Your task to perform on an android device: uninstall "Messages" Image 0: 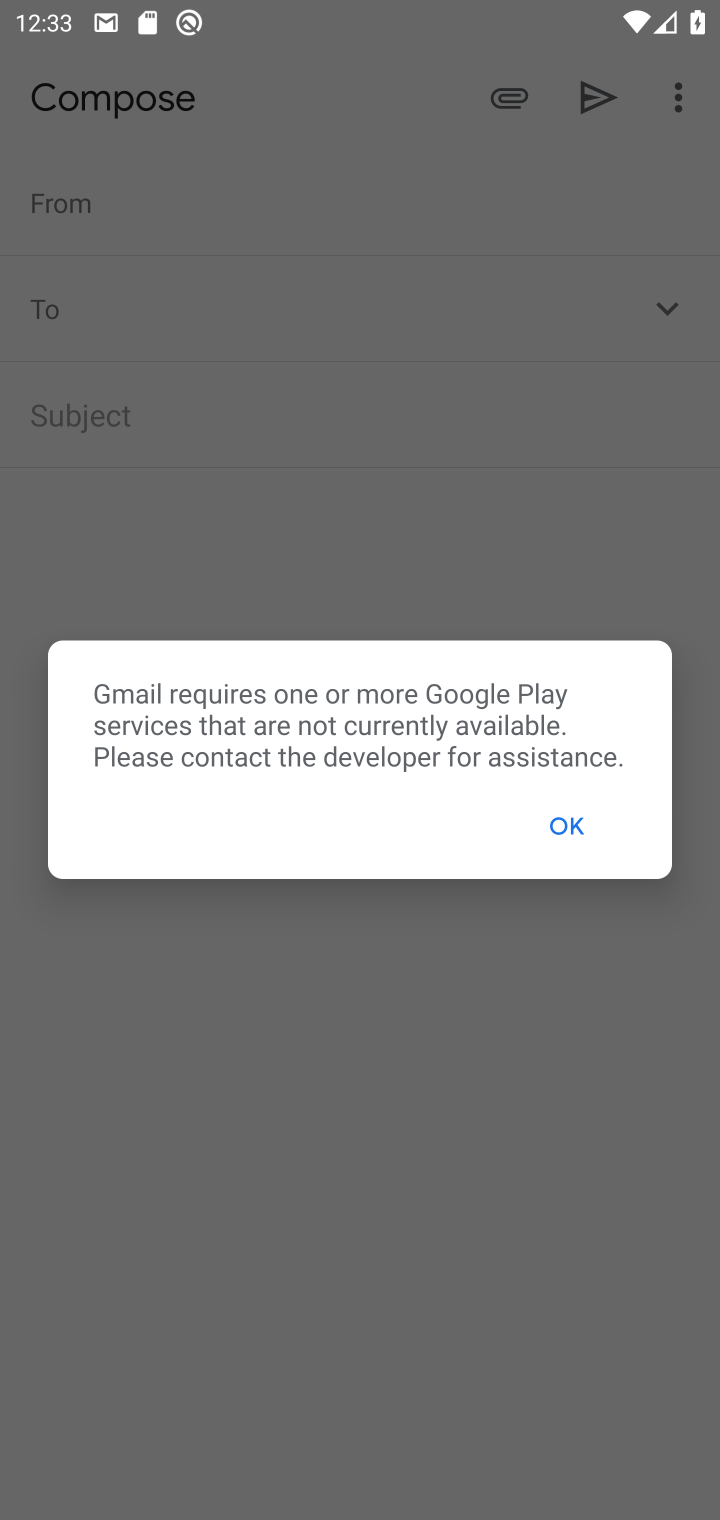
Step 0: press home button
Your task to perform on an android device: uninstall "Messages" Image 1: 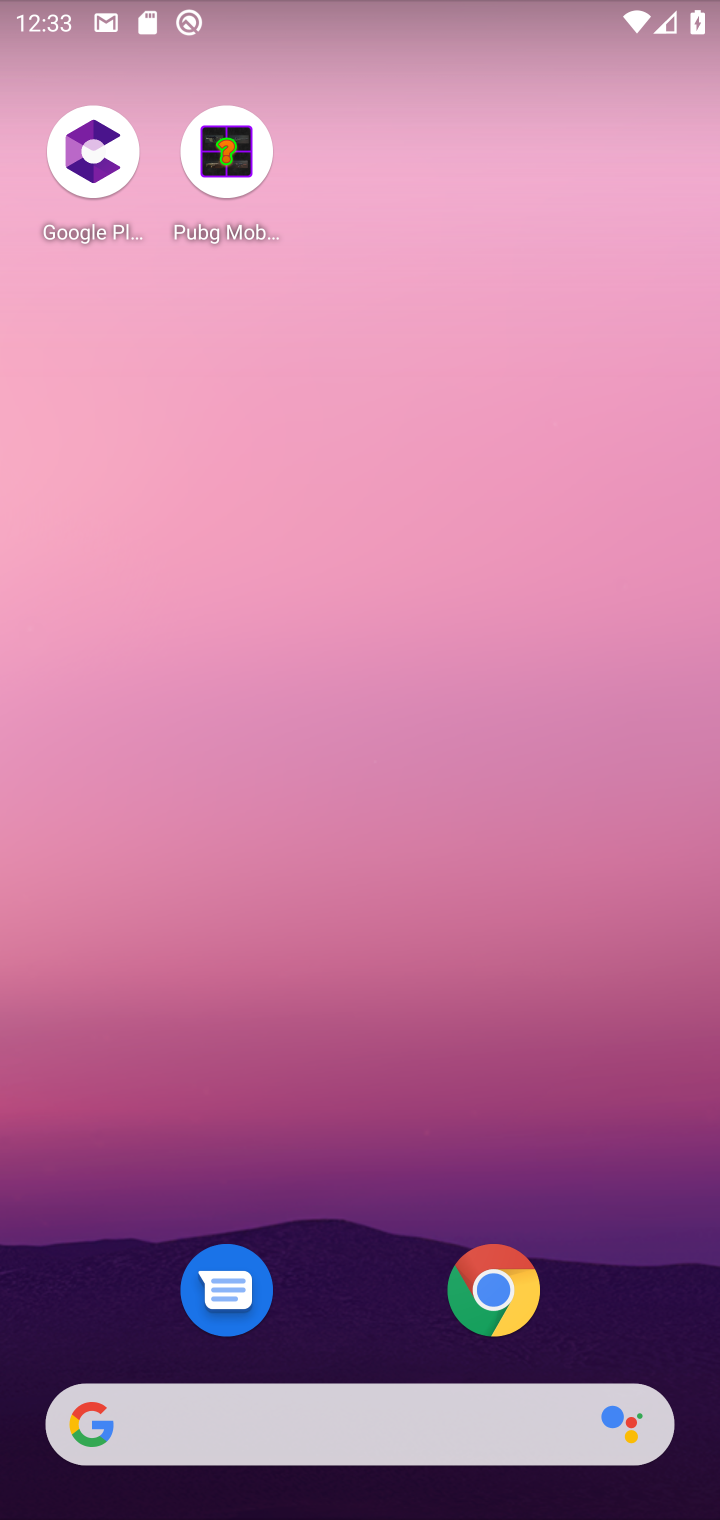
Step 1: click (354, 193)
Your task to perform on an android device: uninstall "Messages" Image 2: 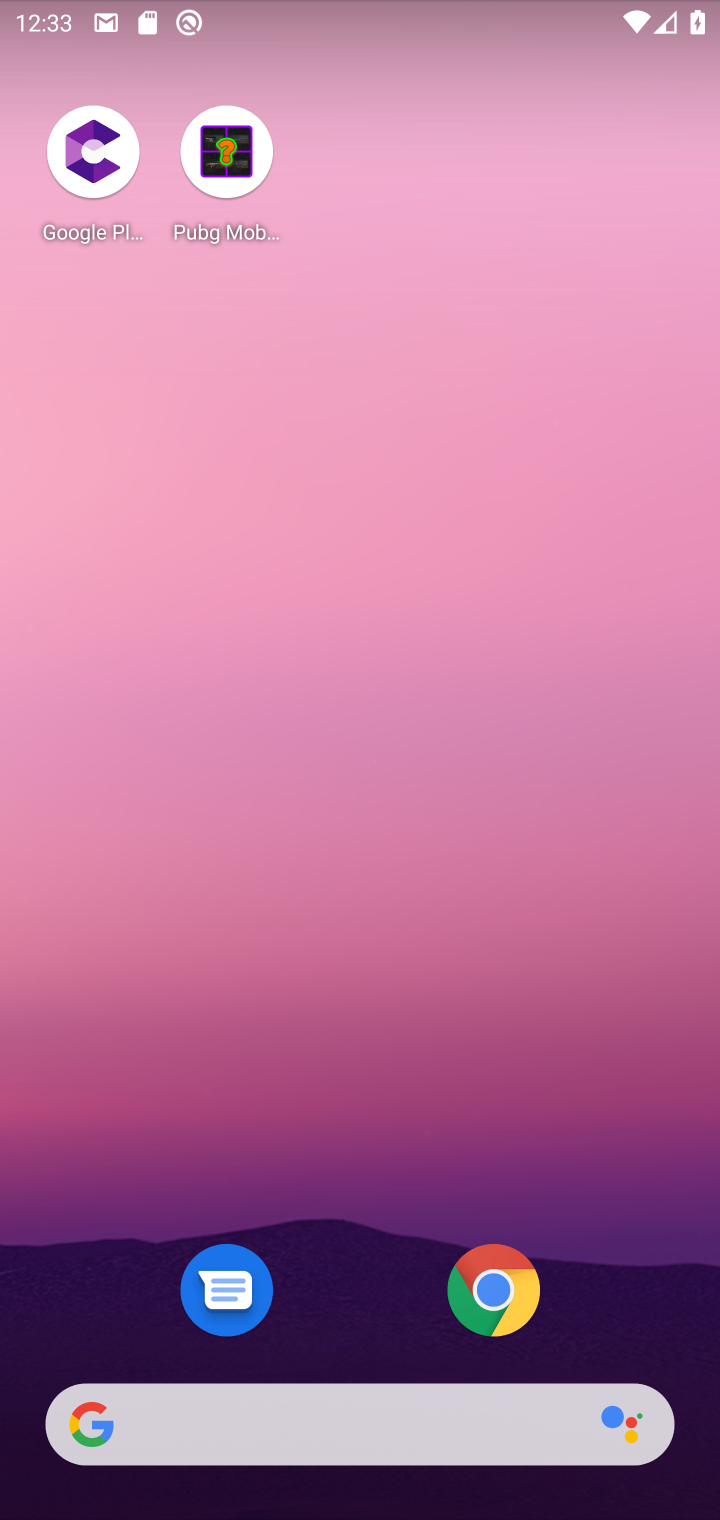
Step 2: click (334, 1315)
Your task to perform on an android device: uninstall "Messages" Image 3: 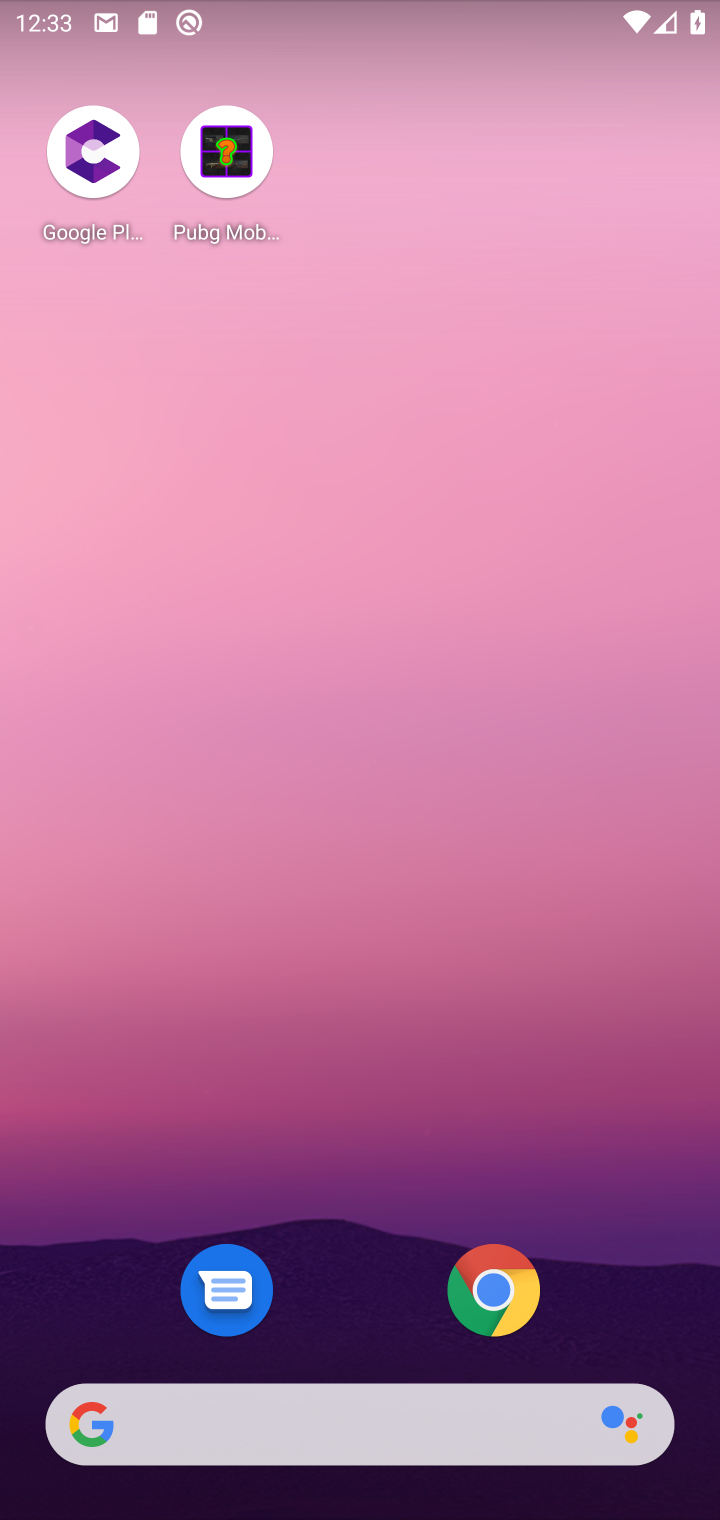
Step 3: drag from (385, 700) to (381, 61)
Your task to perform on an android device: uninstall "Messages" Image 4: 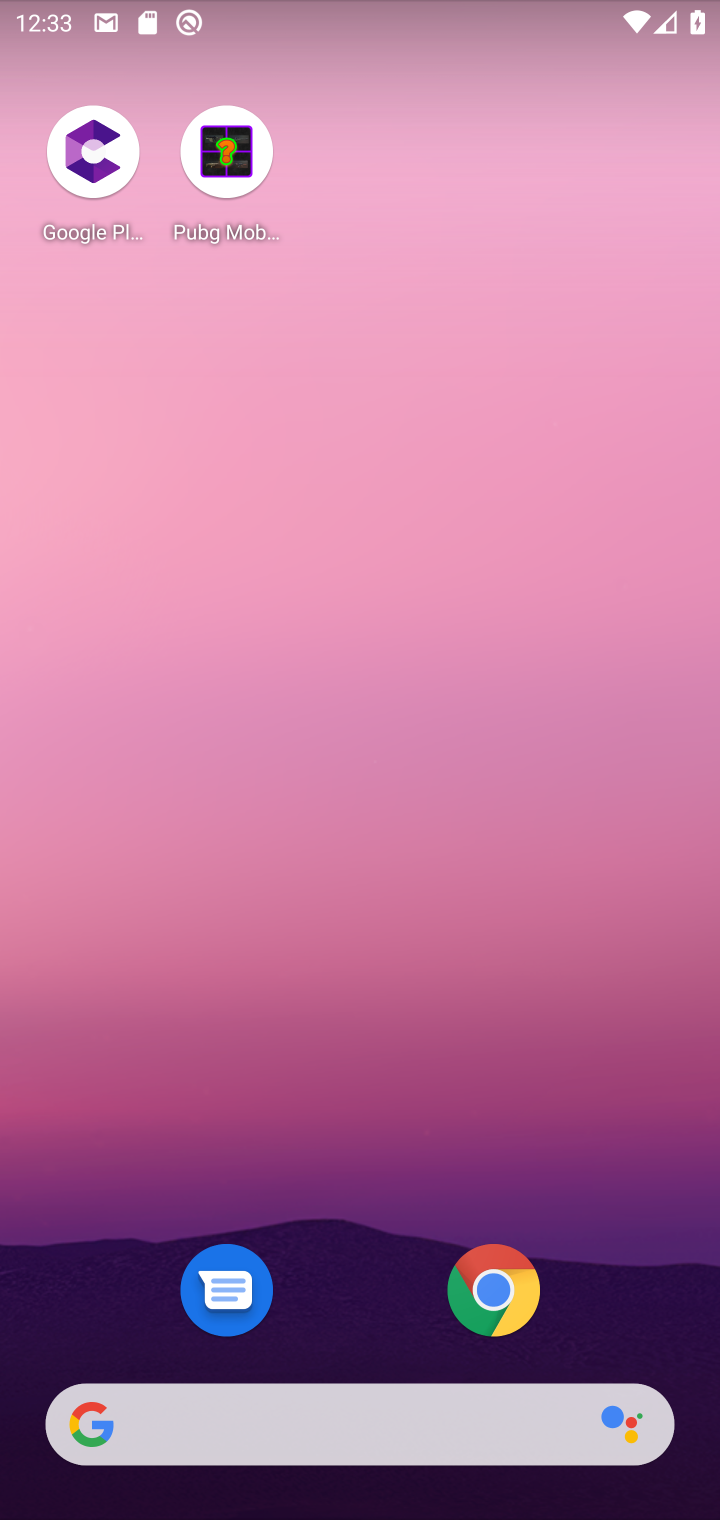
Step 4: drag from (290, 175) to (286, 17)
Your task to perform on an android device: uninstall "Messages" Image 5: 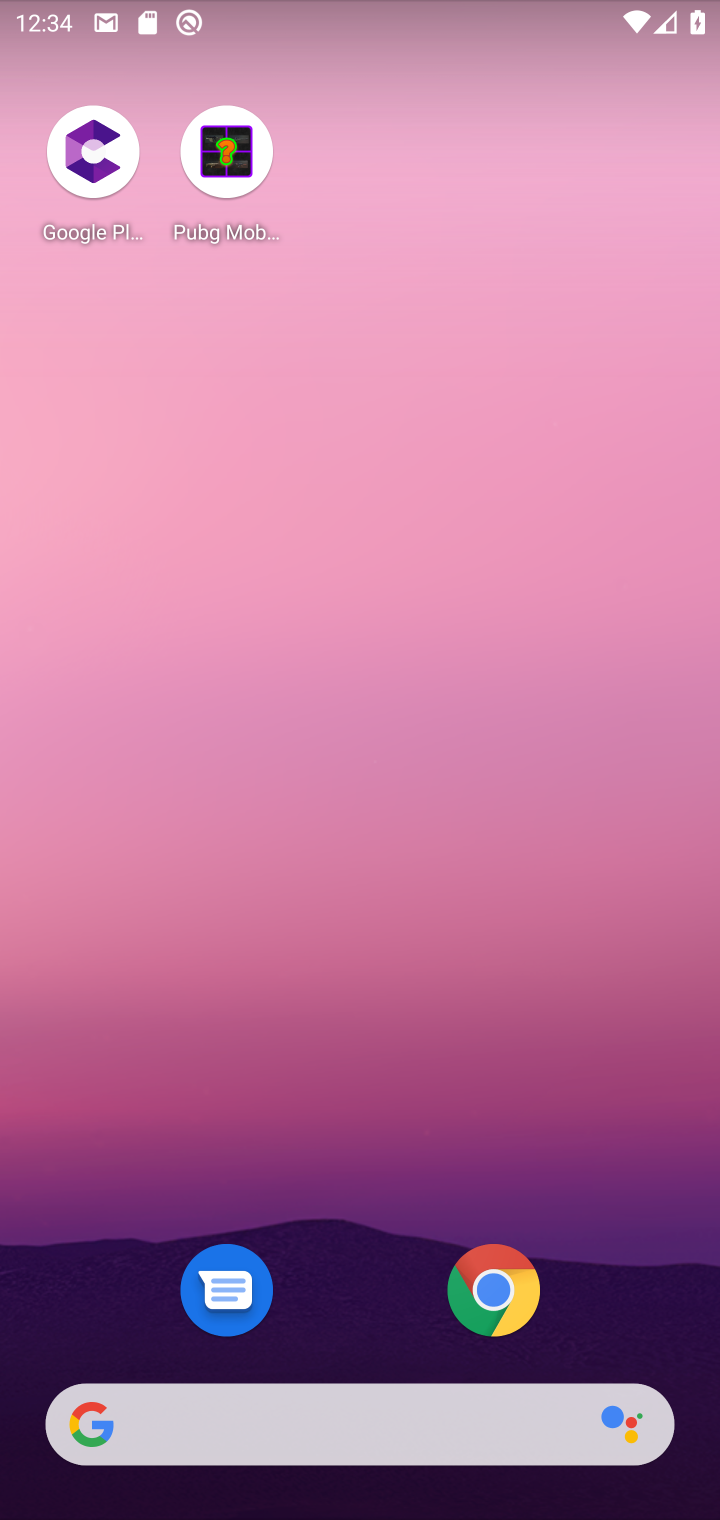
Step 5: drag from (328, 1039) to (446, 175)
Your task to perform on an android device: uninstall "Messages" Image 6: 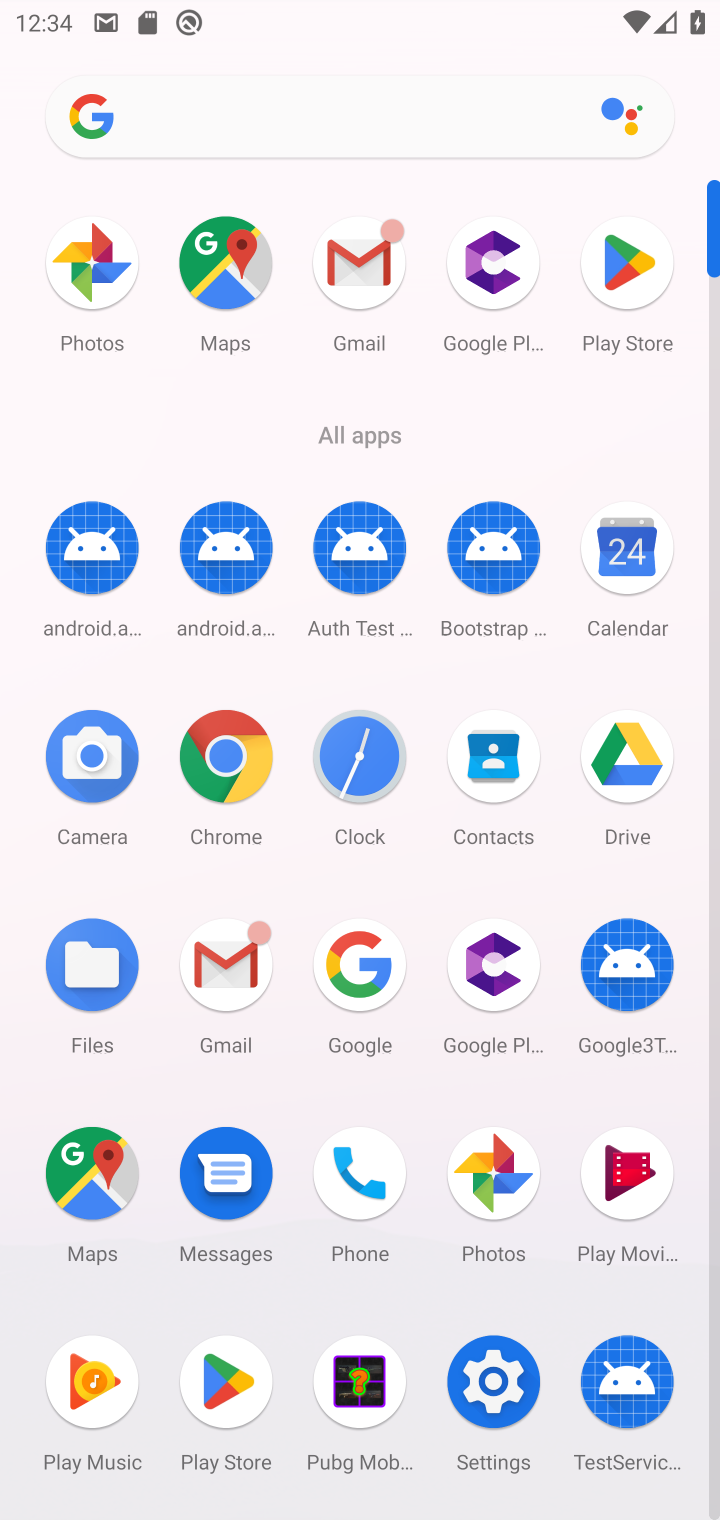
Step 6: click (614, 249)
Your task to perform on an android device: uninstall "Messages" Image 7: 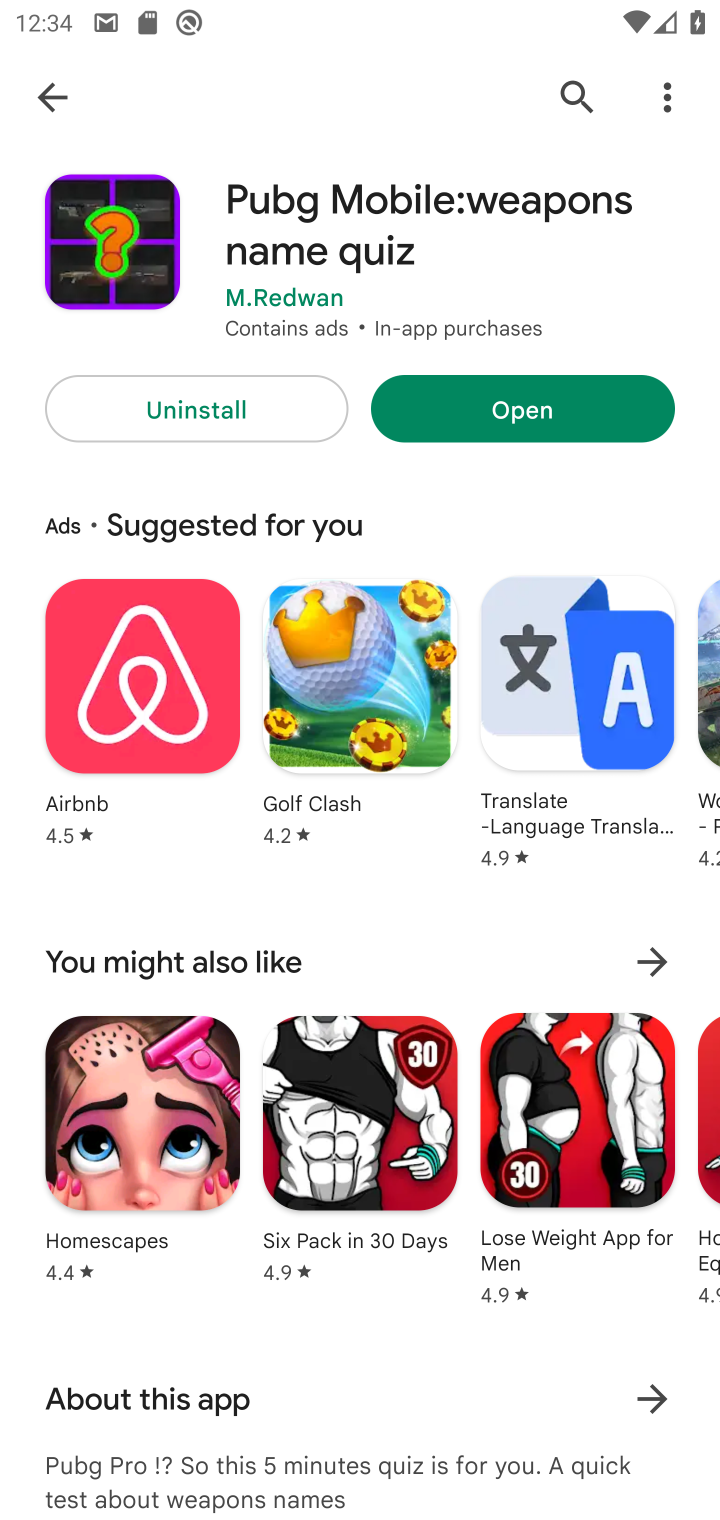
Step 7: click (39, 90)
Your task to perform on an android device: uninstall "Messages" Image 8: 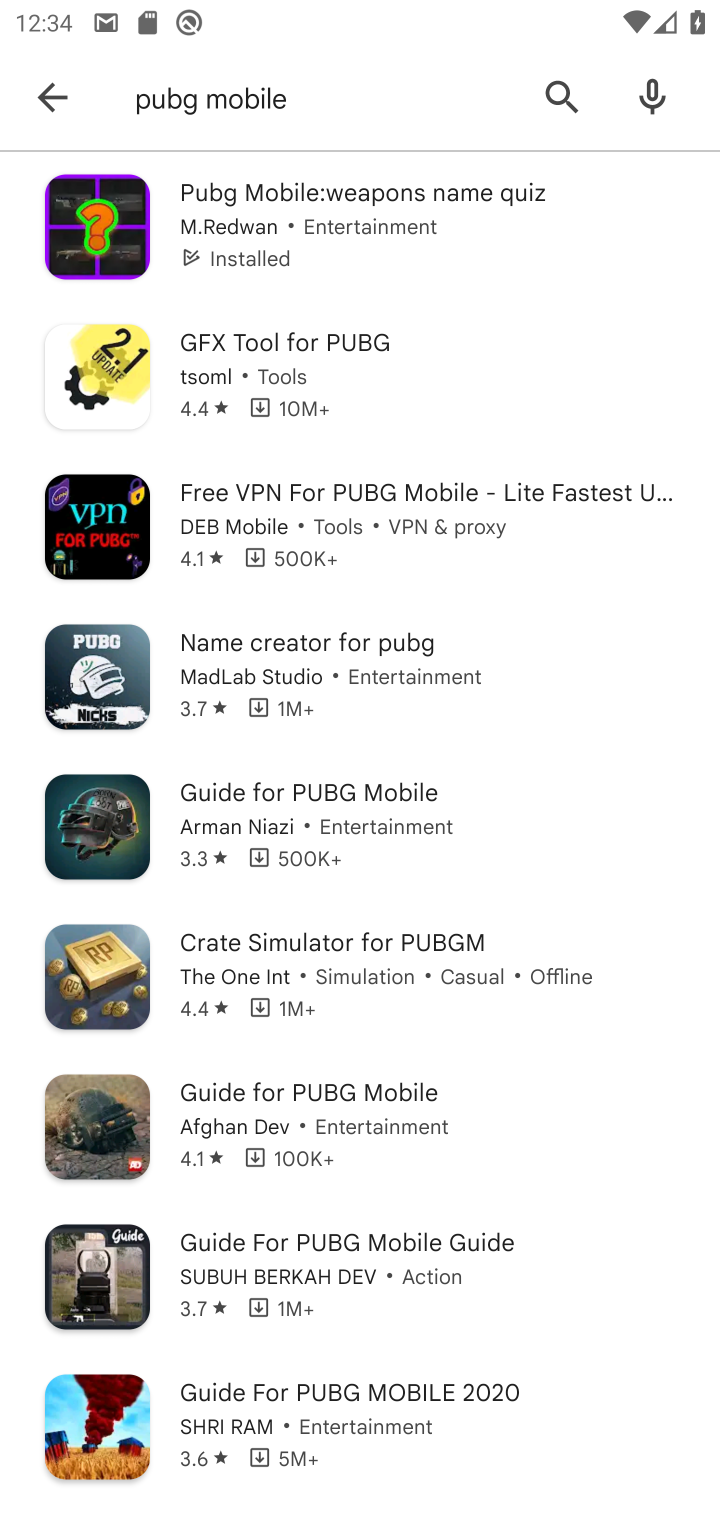
Step 8: click (51, 90)
Your task to perform on an android device: uninstall "Messages" Image 9: 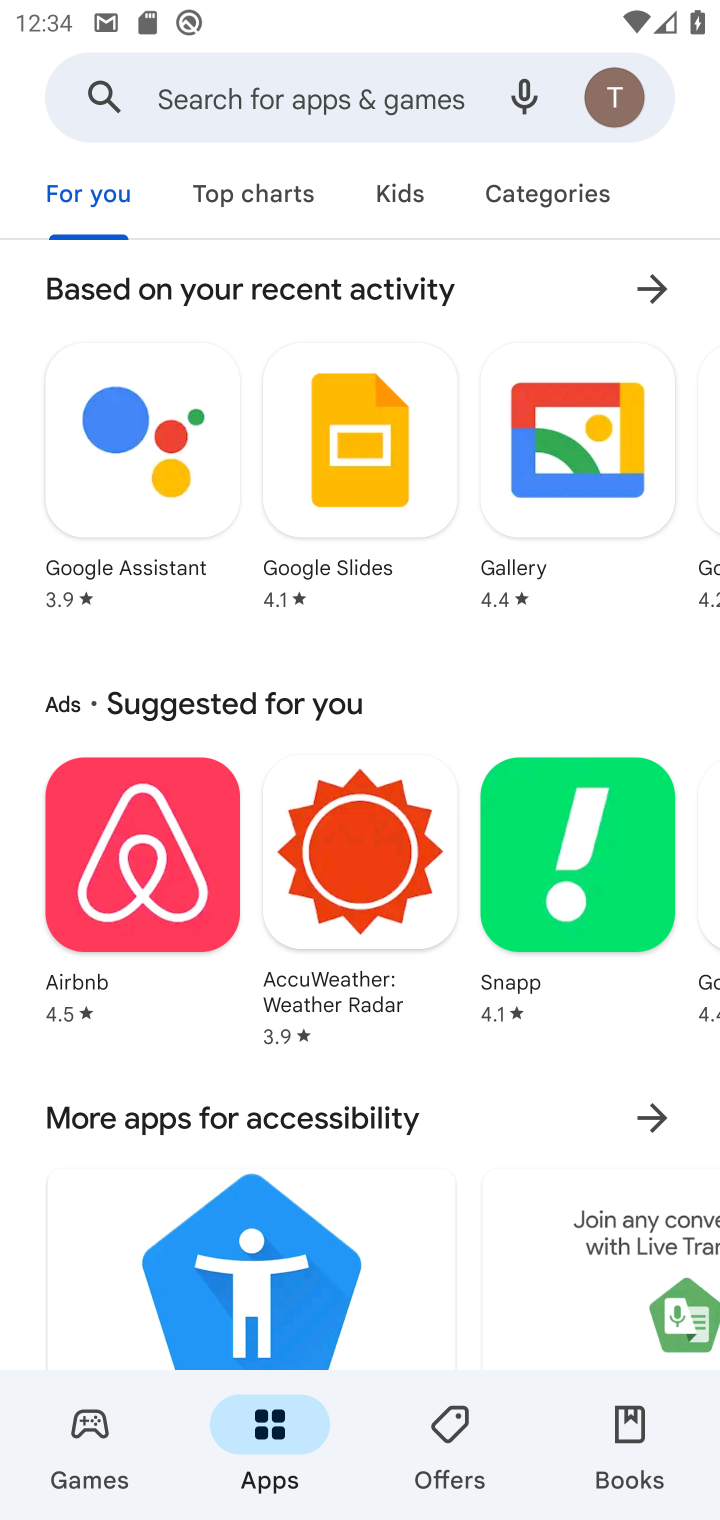
Step 9: click (165, 90)
Your task to perform on an android device: uninstall "Messages" Image 10: 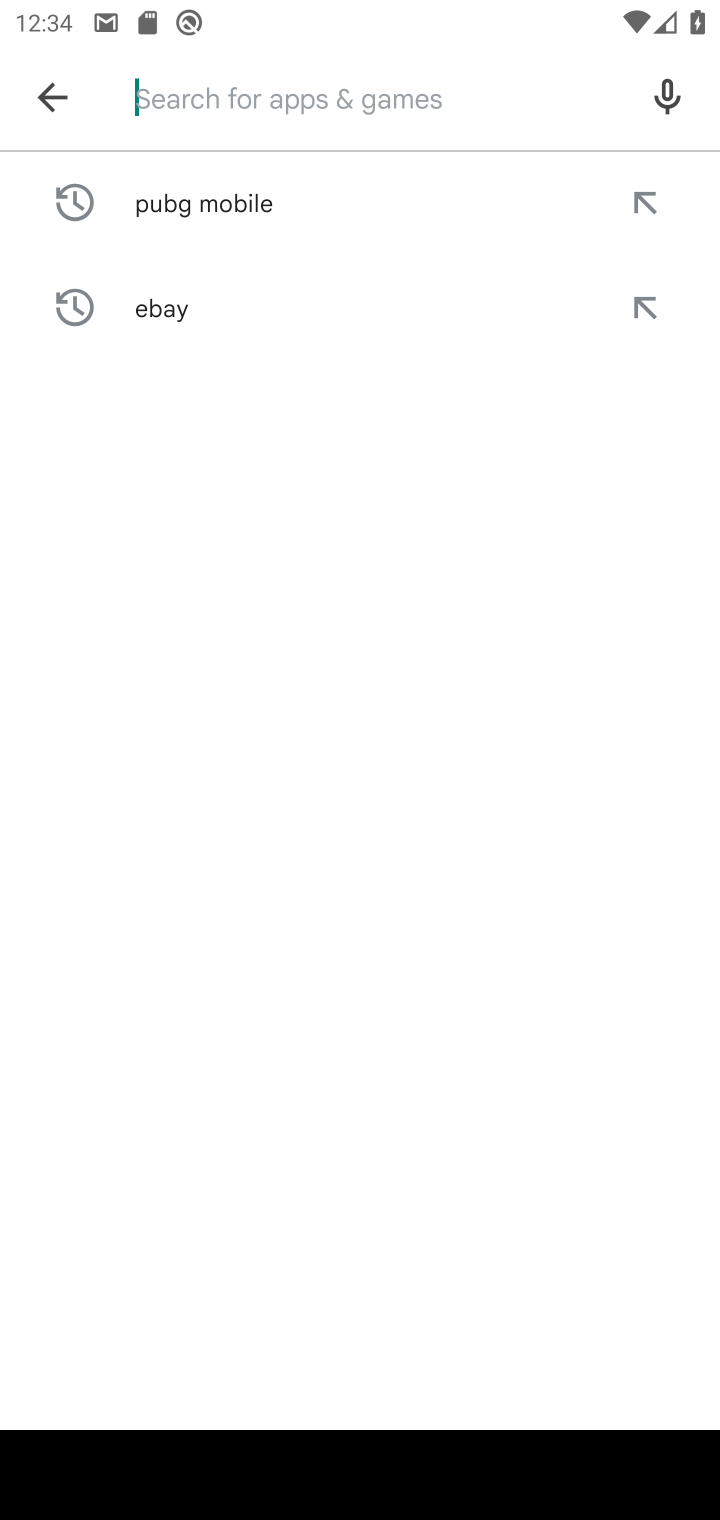
Step 10: type "Messages"
Your task to perform on an android device: uninstall "Messages" Image 11: 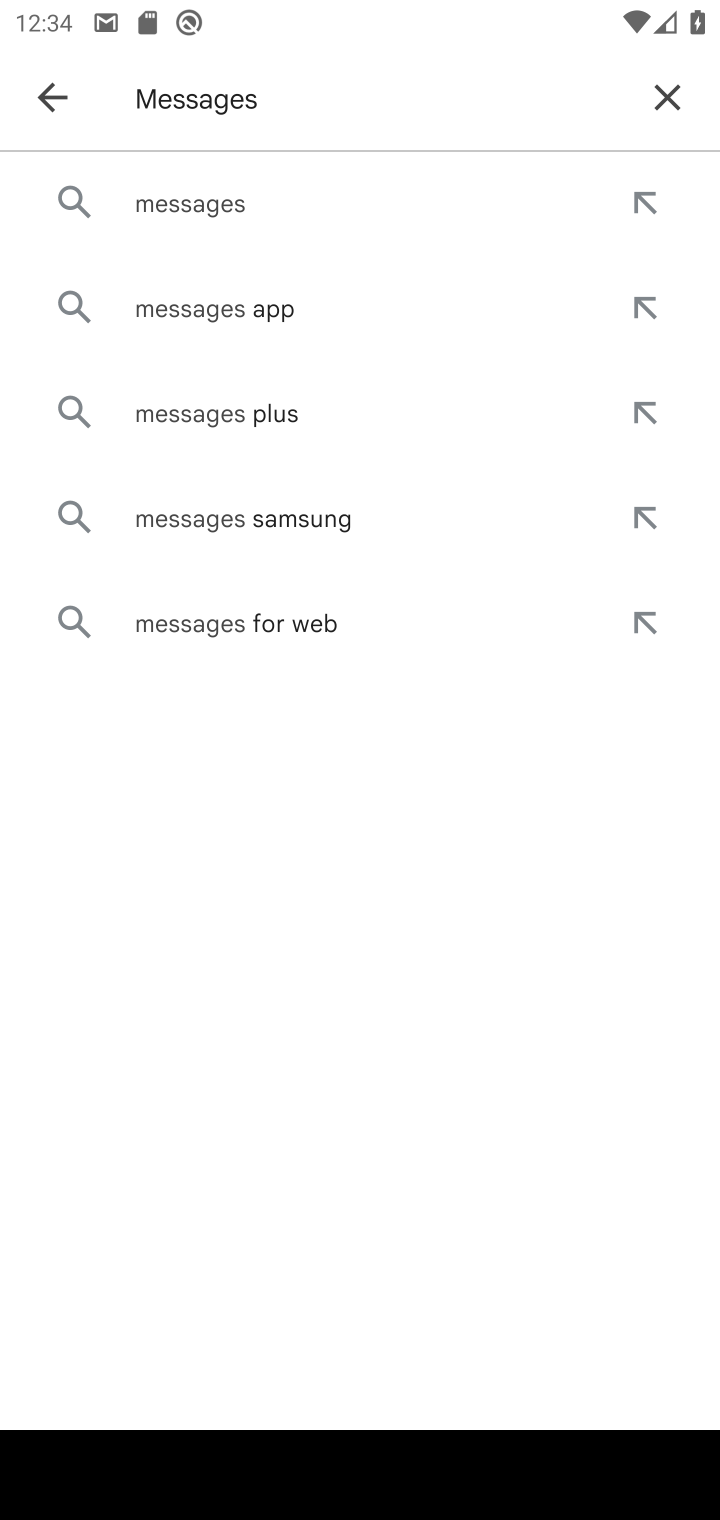
Step 11: click (228, 195)
Your task to perform on an android device: uninstall "Messages" Image 12: 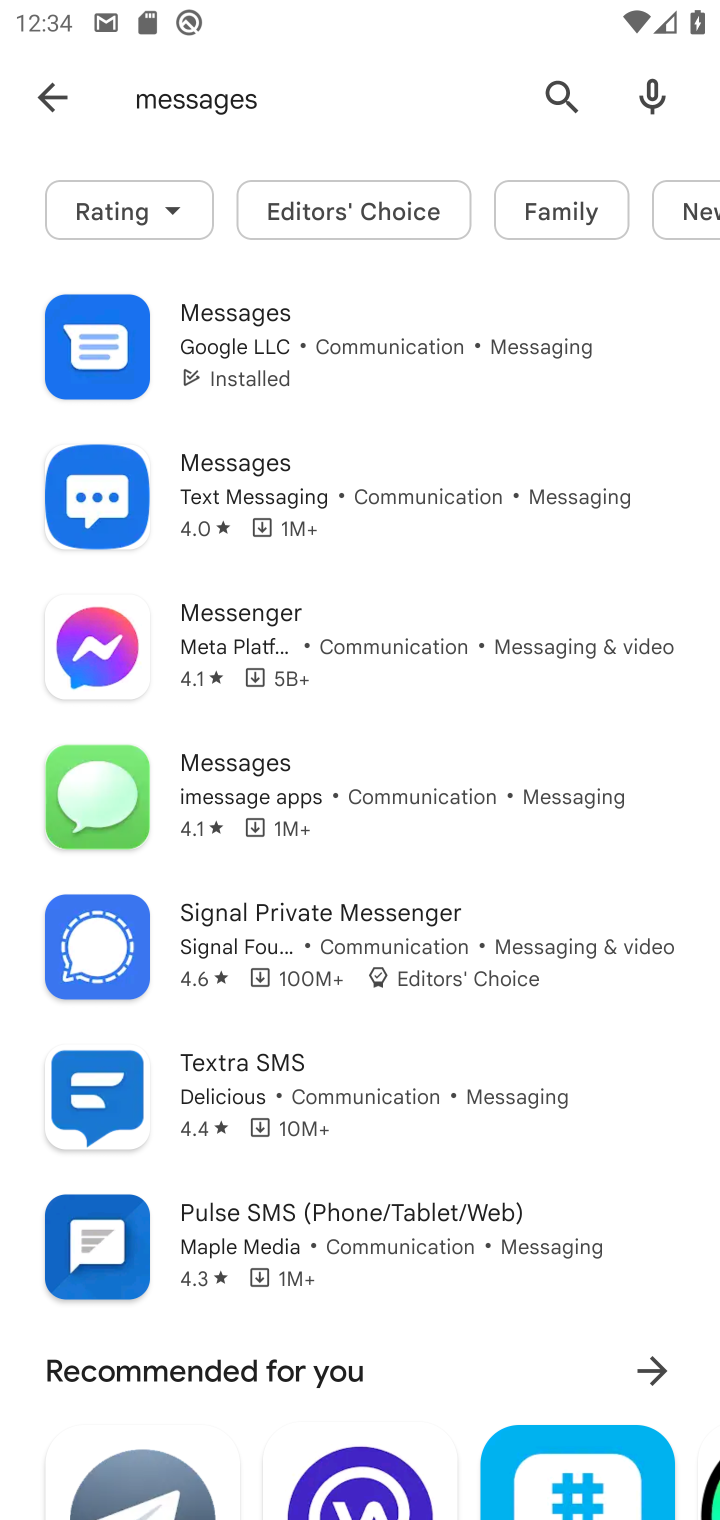
Step 12: click (238, 315)
Your task to perform on an android device: uninstall "Messages" Image 13: 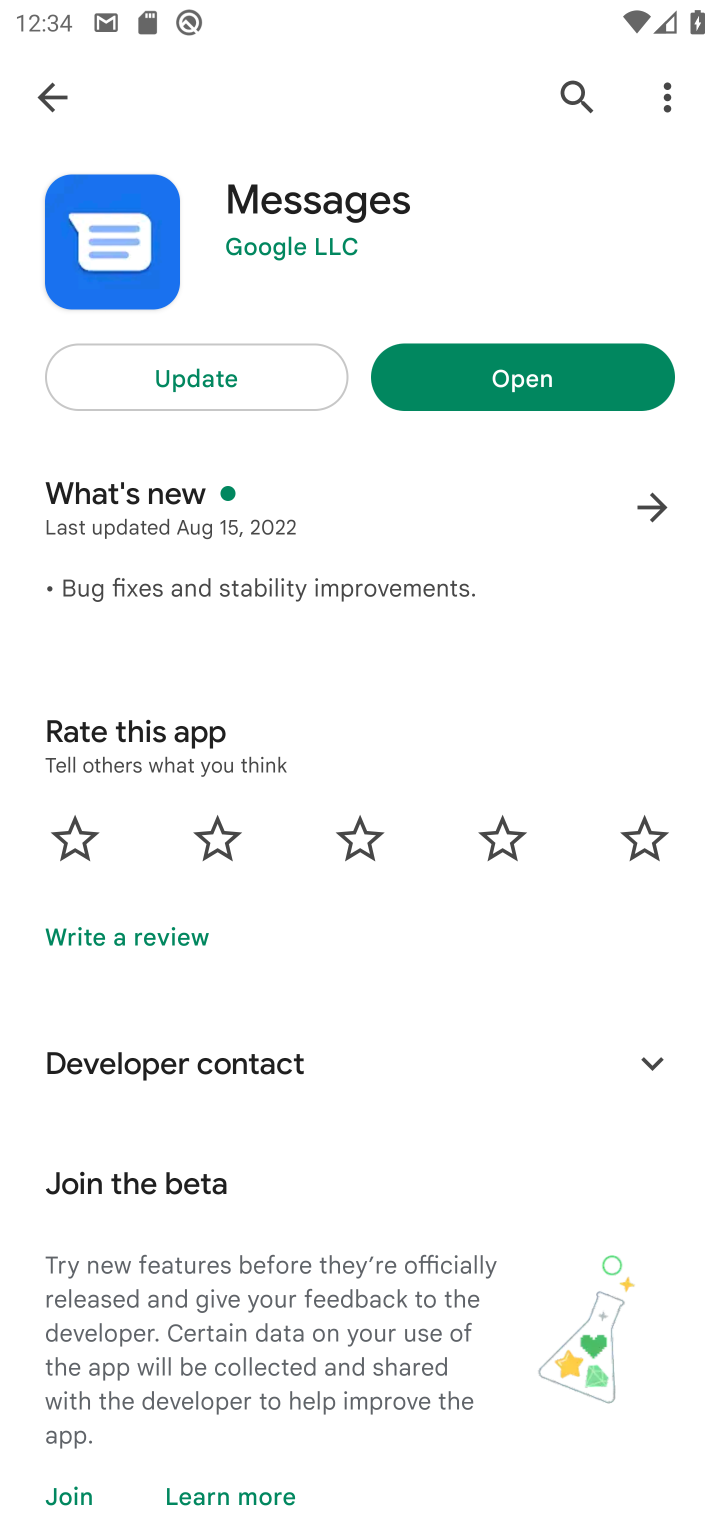
Step 13: click (187, 384)
Your task to perform on an android device: uninstall "Messages" Image 14: 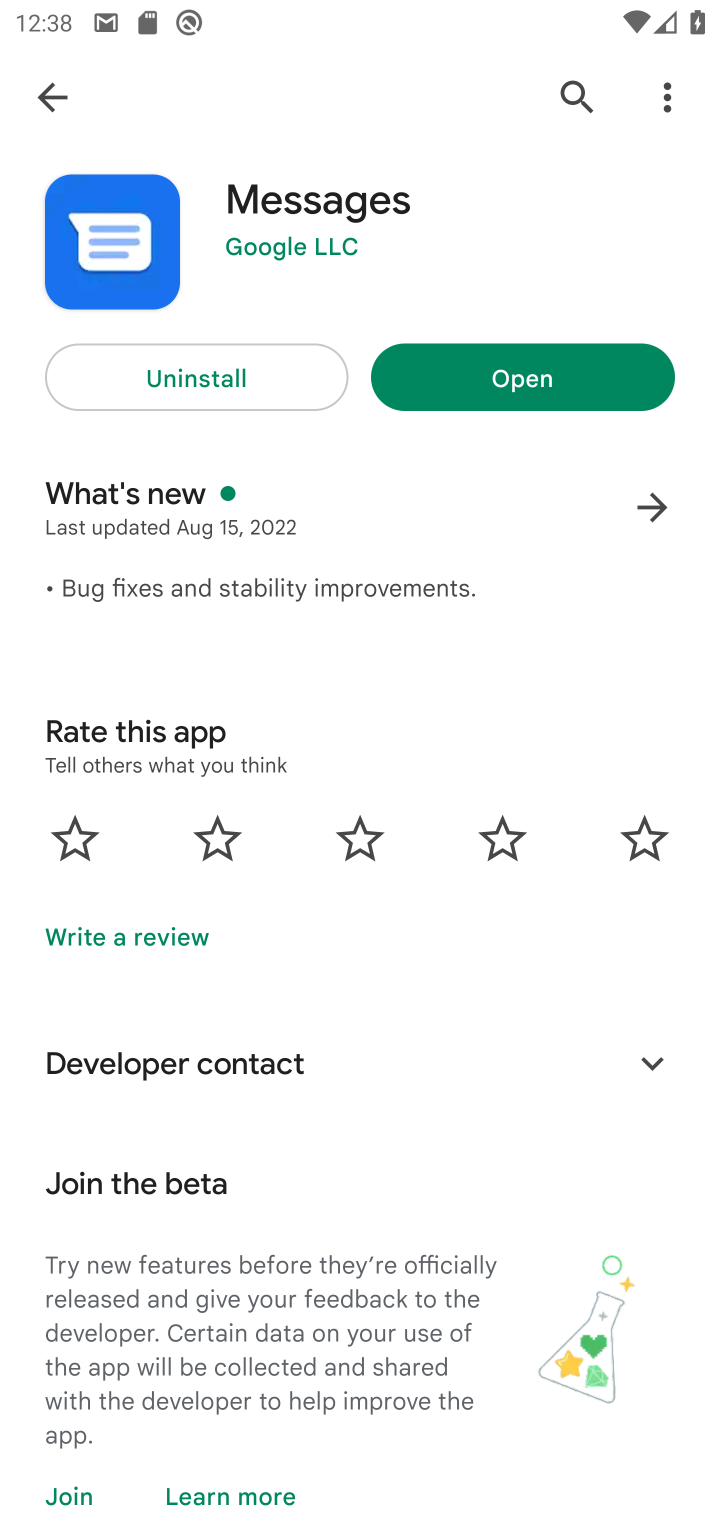
Step 14: click (183, 359)
Your task to perform on an android device: uninstall "Messages" Image 15: 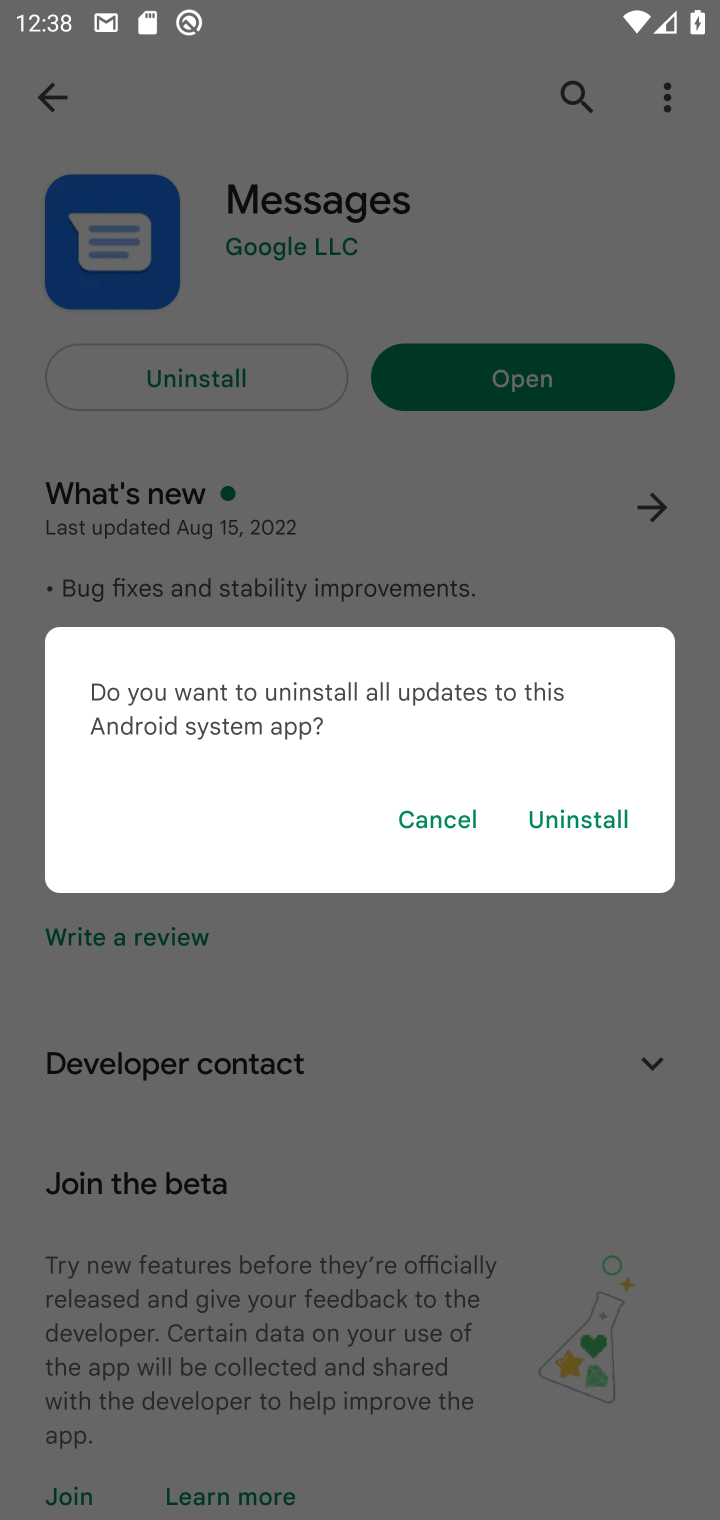
Step 15: click (556, 827)
Your task to perform on an android device: uninstall "Messages" Image 16: 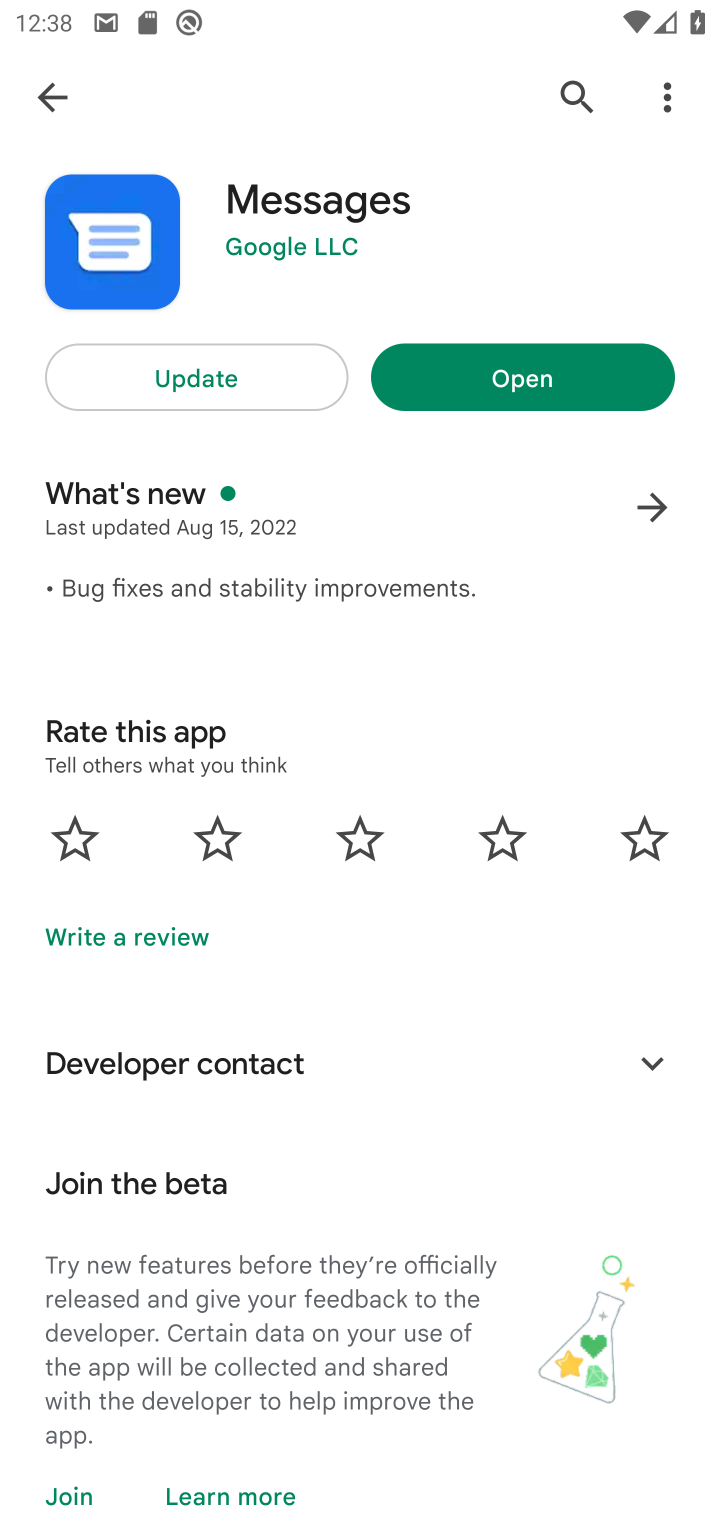
Step 16: task complete